Your task to perform on an android device: Open the calendar app, open the side menu, and click the "Day" option Image 0: 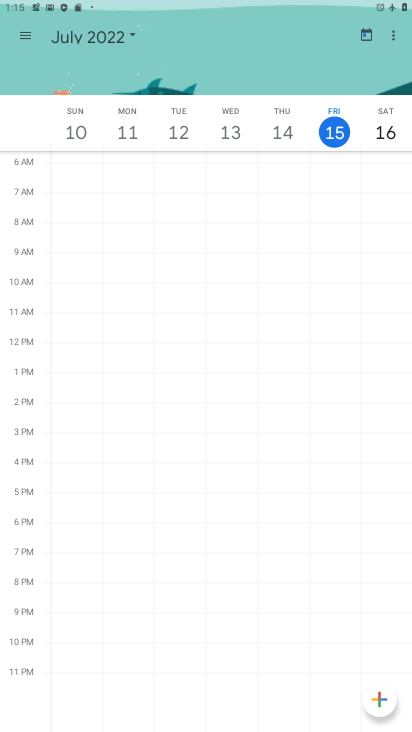
Step 0: press home button
Your task to perform on an android device: Open the calendar app, open the side menu, and click the "Day" option Image 1: 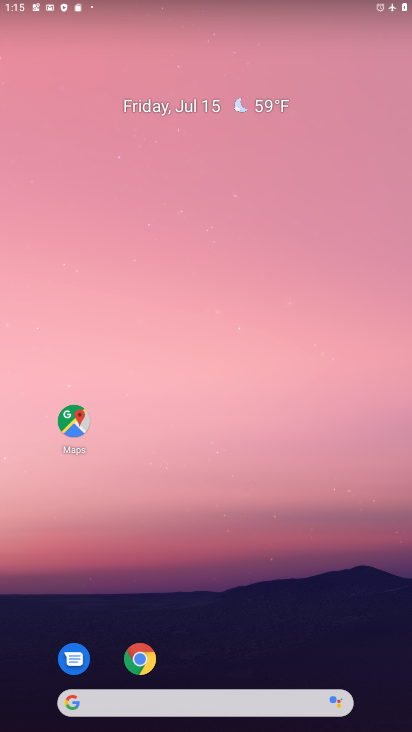
Step 1: drag from (202, 724) to (209, 118)
Your task to perform on an android device: Open the calendar app, open the side menu, and click the "Day" option Image 2: 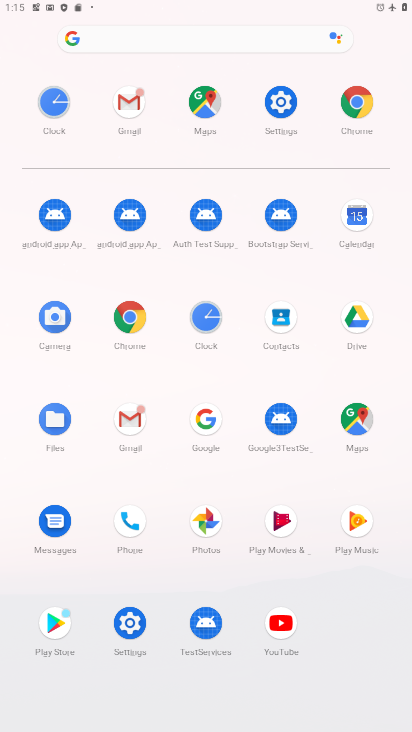
Step 2: click (357, 220)
Your task to perform on an android device: Open the calendar app, open the side menu, and click the "Day" option Image 3: 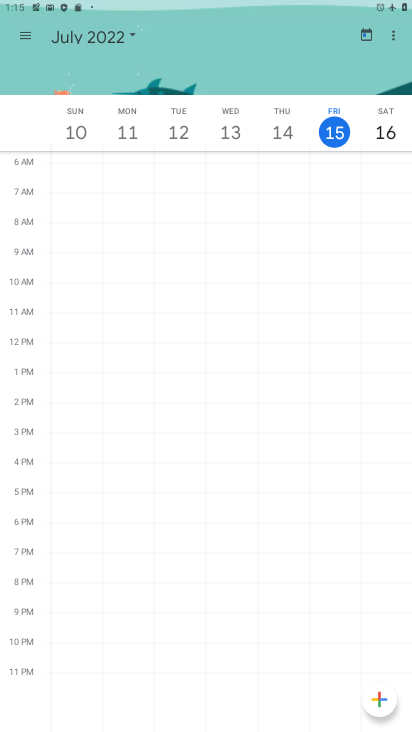
Step 3: click (28, 36)
Your task to perform on an android device: Open the calendar app, open the side menu, and click the "Day" option Image 4: 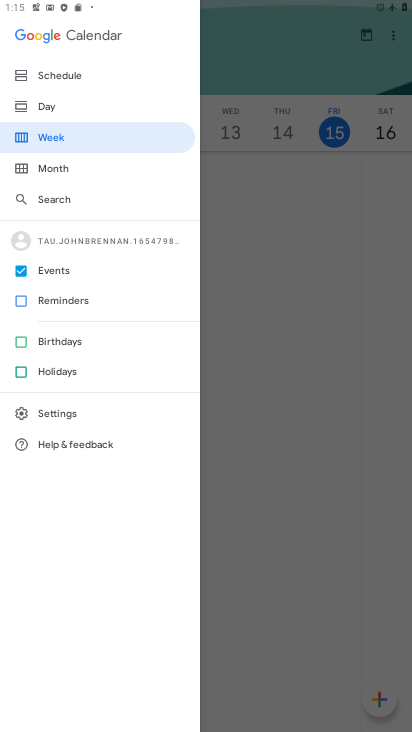
Step 4: click (44, 106)
Your task to perform on an android device: Open the calendar app, open the side menu, and click the "Day" option Image 5: 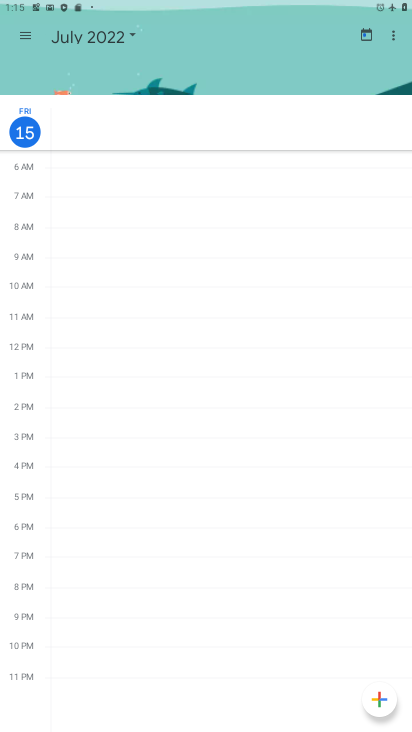
Step 5: task complete